Your task to perform on an android device: find photos in the google photos app Image 0: 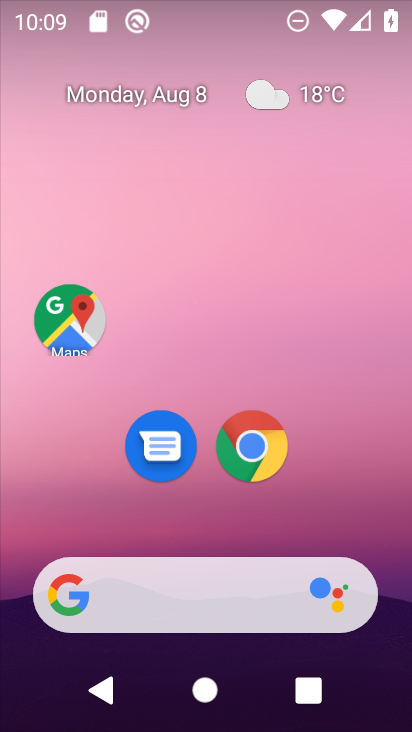
Step 0: drag from (398, 620) to (363, 100)
Your task to perform on an android device: find photos in the google photos app Image 1: 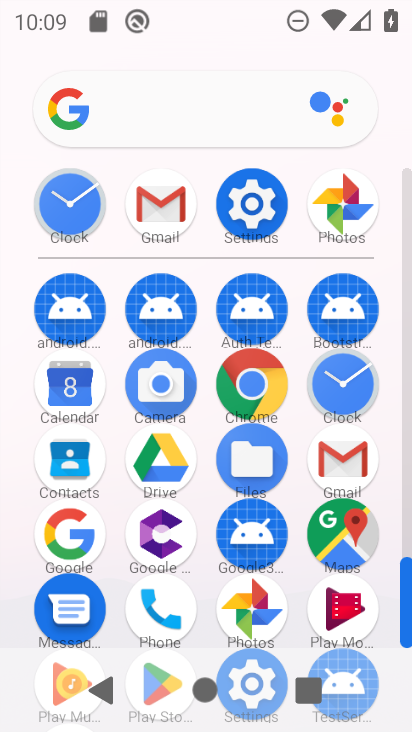
Step 1: click (251, 605)
Your task to perform on an android device: find photos in the google photos app Image 2: 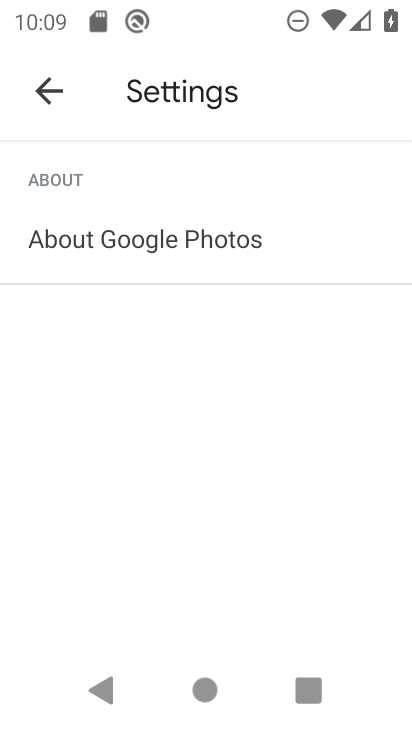
Step 2: press back button
Your task to perform on an android device: find photos in the google photos app Image 3: 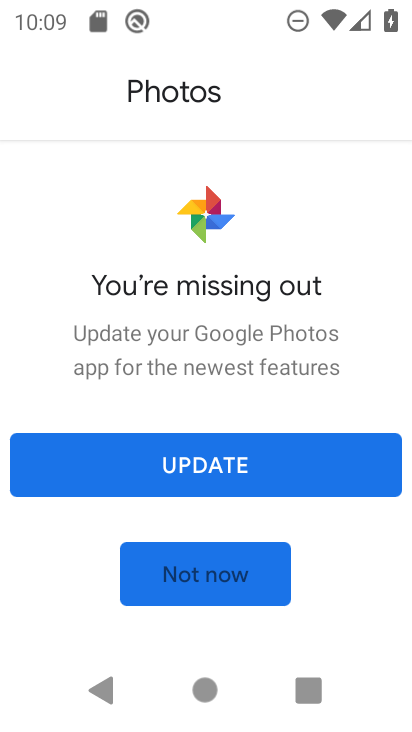
Step 3: click (185, 464)
Your task to perform on an android device: find photos in the google photos app Image 4: 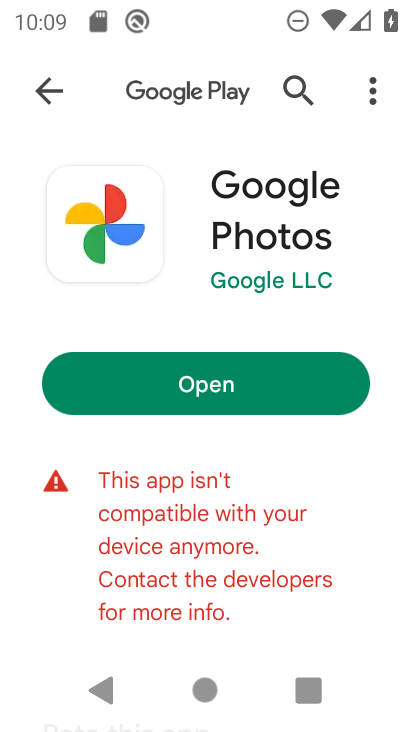
Step 4: click (195, 381)
Your task to perform on an android device: find photos in the google photos app Image 5: 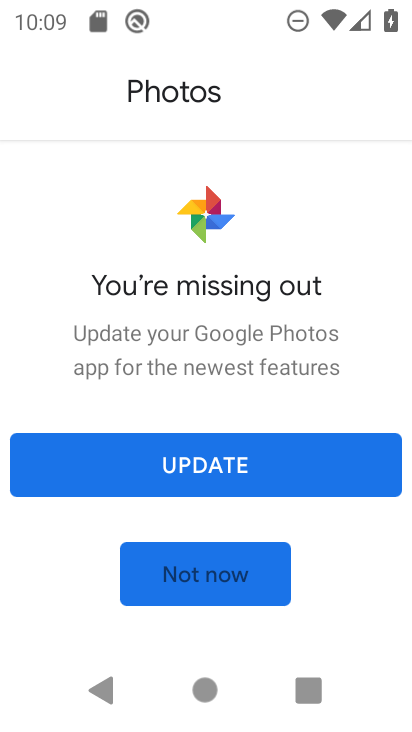
Step 5: click (207, 464)
Your task to perform on an android device: find photos in the google photos app Image 6: 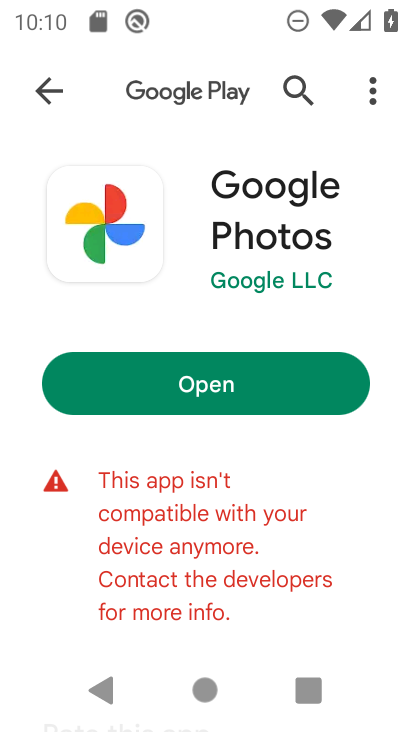
Step 6: click (205, 392)
Your task to perform on an android device: find photos in the google photos app Image 7: 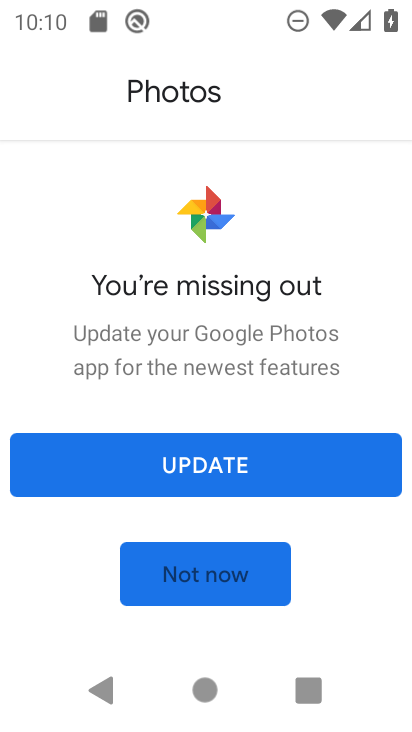
Step 7: click (210, 475)
Your task to perform on an android device: find photos in the google photos app Image 8: 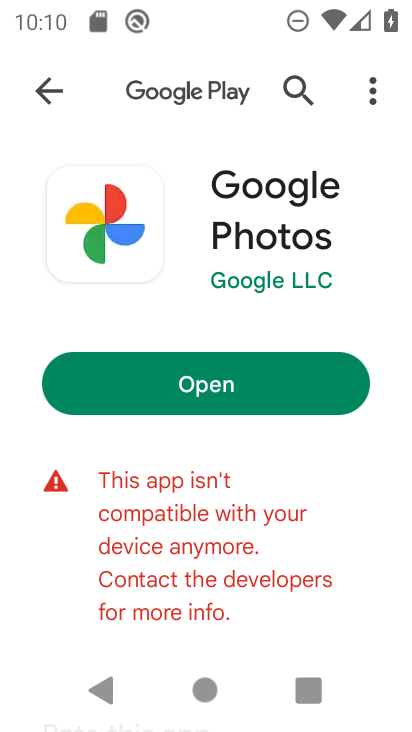
Step 8: click (207, 396)
Your task to perform on an android device: find photos in the google photos app Image 9: 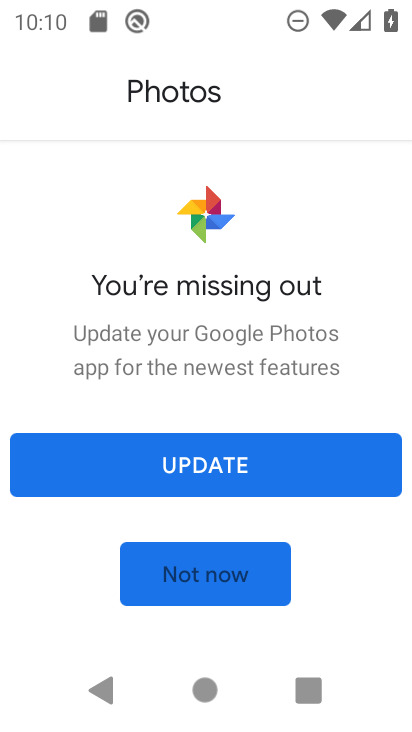
Step 9: task complete